Your task to perform on an android device: open chrome and create a bookmark for the current page Image 0: 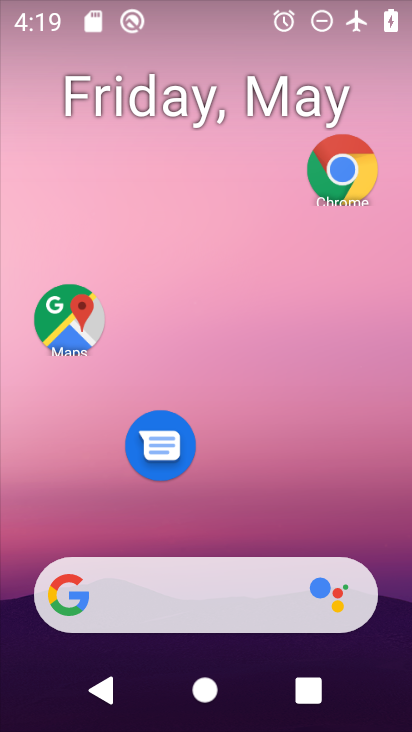
Step 0: click (340, 167)
Your task to perform on an android device: open chrome and create a bookmark for the current page Image 1: 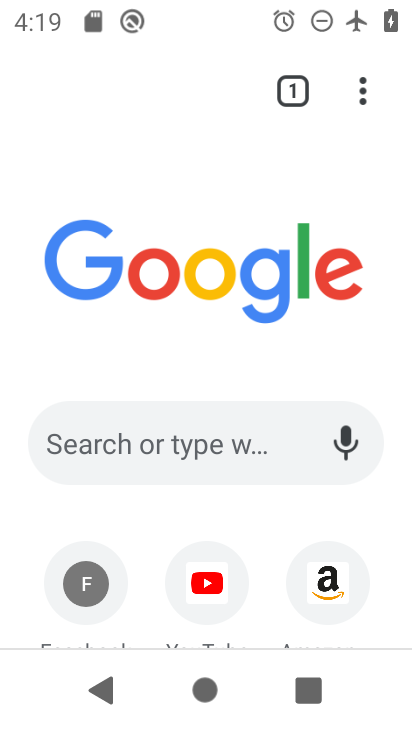
Step 1: click (366, 96)
Your task to perform on an android device: open chrome and create a bookmark for the current page Image 2: 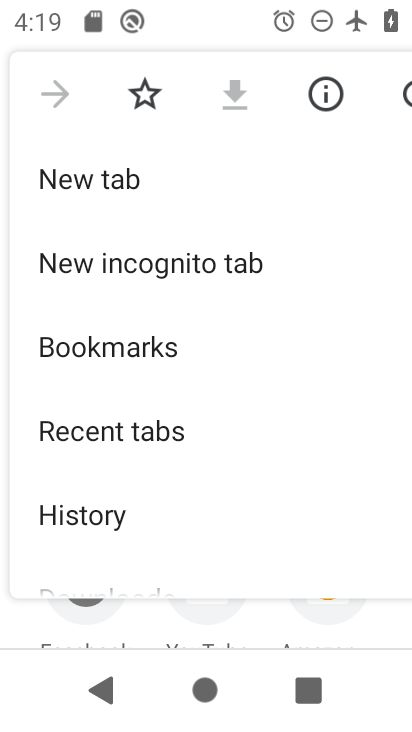
Step 2: click (147, 99)
Your task to perform on an android device: open chrome and create a bookmark for the current page Image 3: 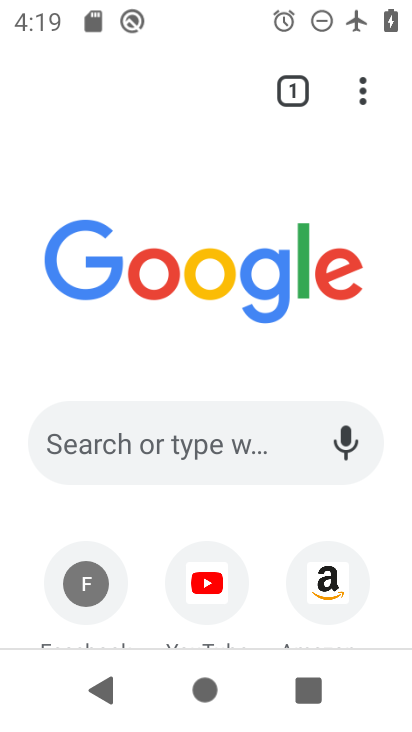
Step 3: task complete